Your task to perform on an android device: Open my contact list Image 0: 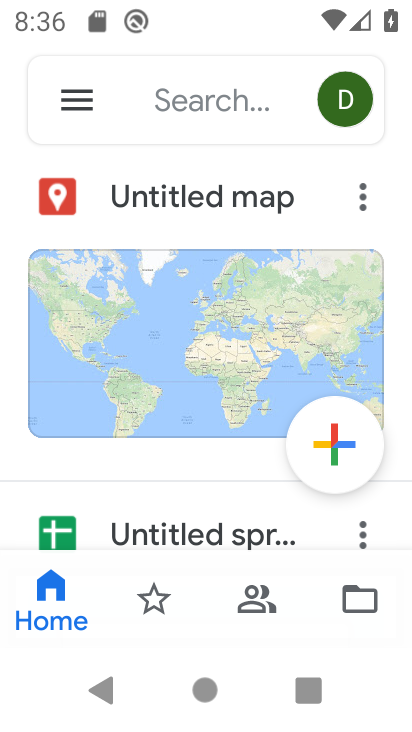
Step 0: press home button
Your task to perform on an android device: Open my contact list Image 1: 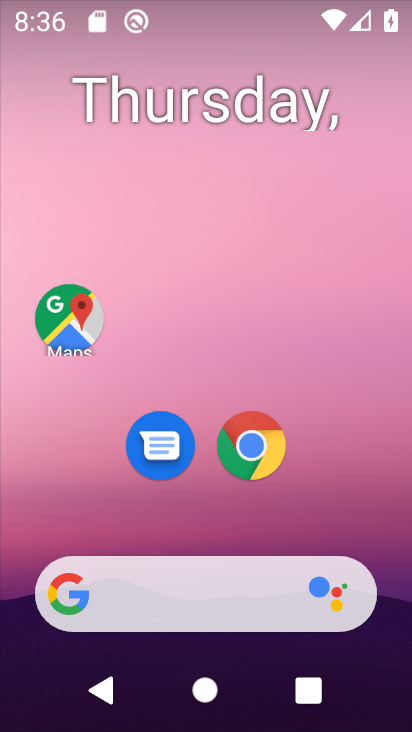
Step 1: drag from (211, 531) to (199, 100)
Your task to perform on an android device: Open my contact list Image 2: 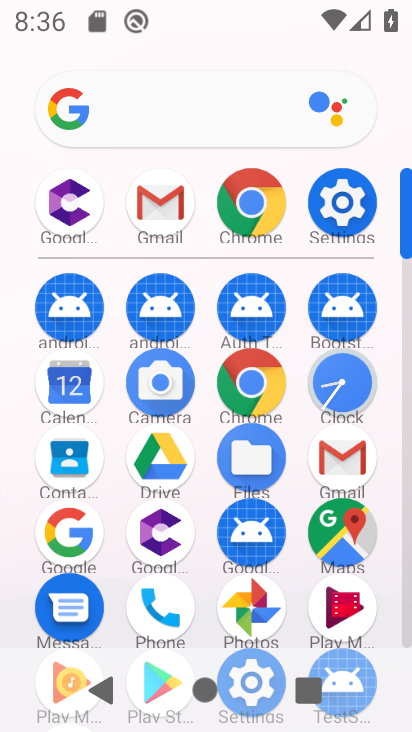
Step 2: click (75, 461)
Your task to perform on an android device: Open my contact list Image 3: 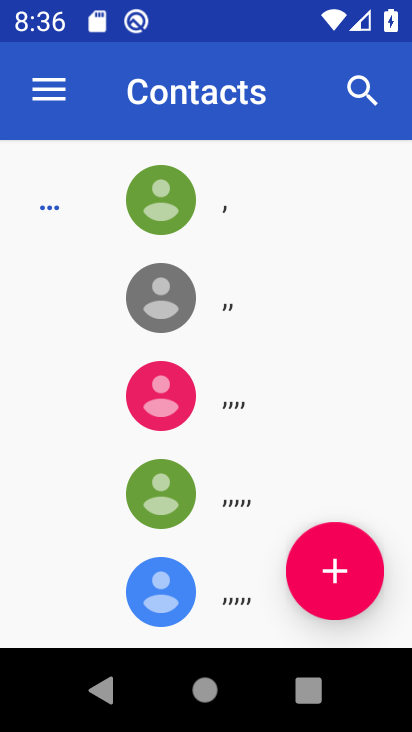
Step 3: task complete